Your task to perform on an android device: turn off javascript in the chrome app Image 0: 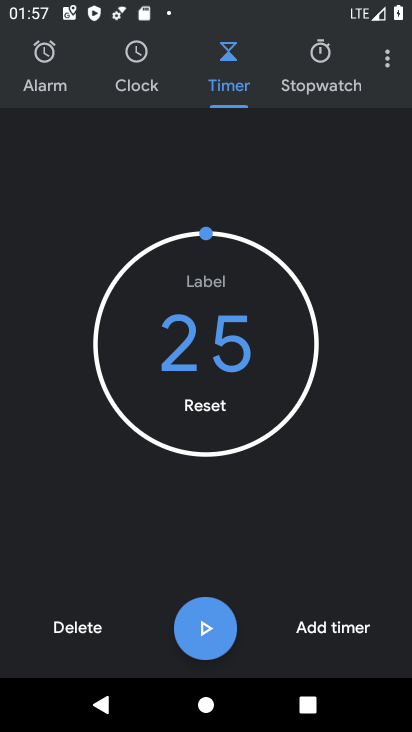
Step 0: press home button
Your task to perform on an android device: turn off javascript in the chrome app Image 1: 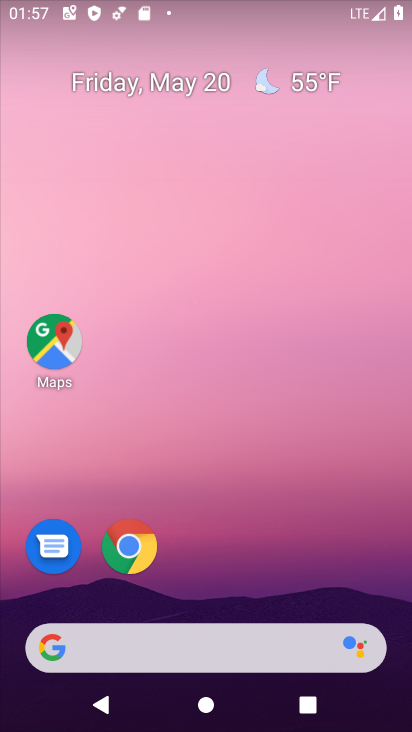
Step 1: click (150, 537)
Your task to perform on an android device: turn off javascript in the chrome app Image 2: 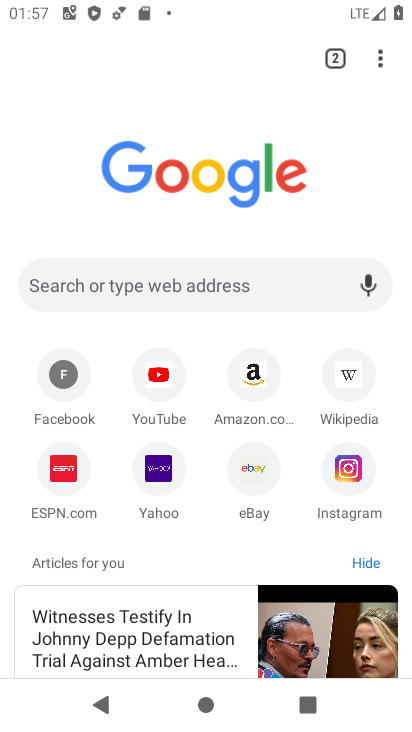
Step 2: drag from (378, 66) to (176, 494)
Your task to perform on an android device: turn off javascript in the chrome app Image 3: 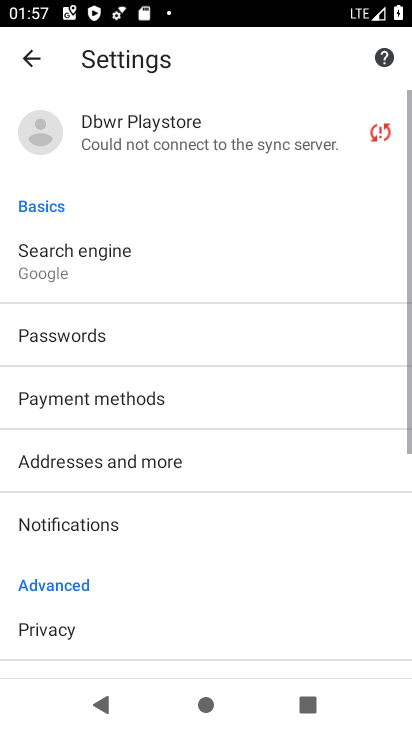
Step 3: drag from (175, 491) to (149, 176)
Your task to perform on an android device: turn off javascript in the chrome app Image 4: 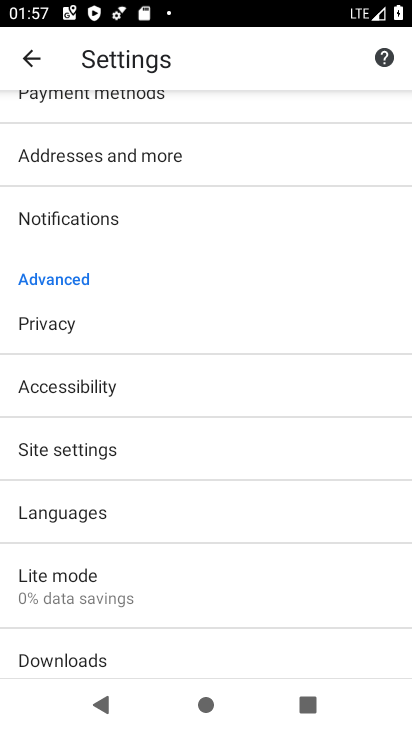
Step 4: click (101, 441)
Your task to perform on an android device: turn off javascript in the chrome app Image 5: 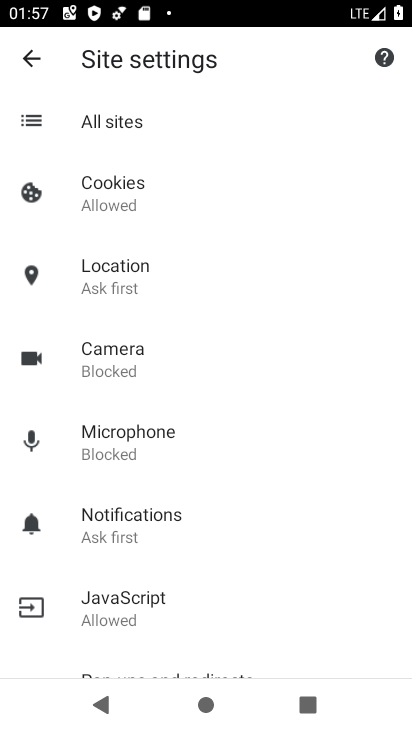
Step 5: click (152, 588)
Your task to perform on an android device: turn off javascript in the chrome app Image 6: 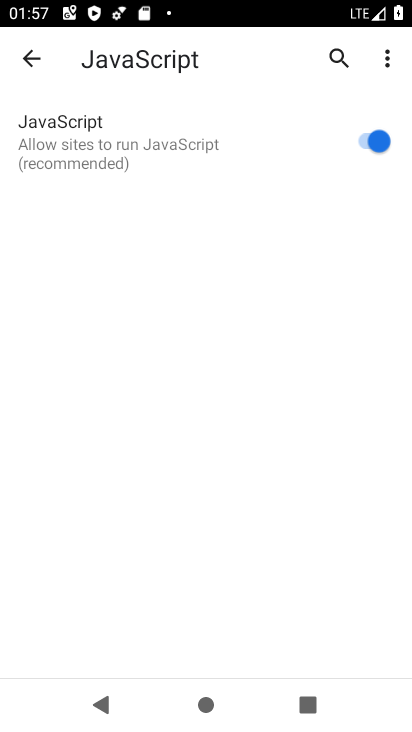
Step 6: click (359, 134)
Your task to perform on an android device: turn off javascript in the chrome app Image 7: 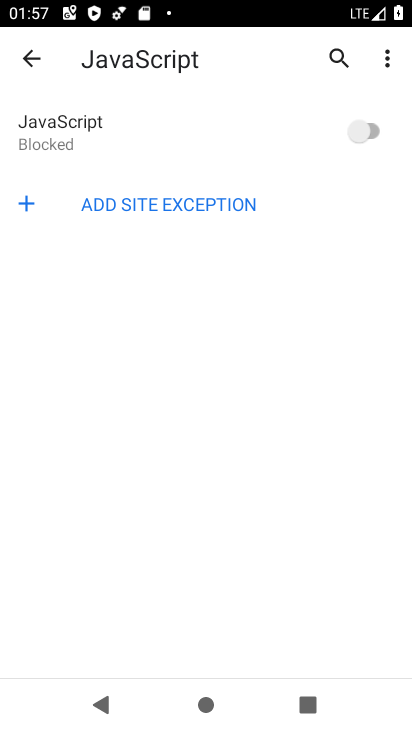
Step 7: task complete